Your task to perform on an android device: change your default location settings in chrome Image 0: 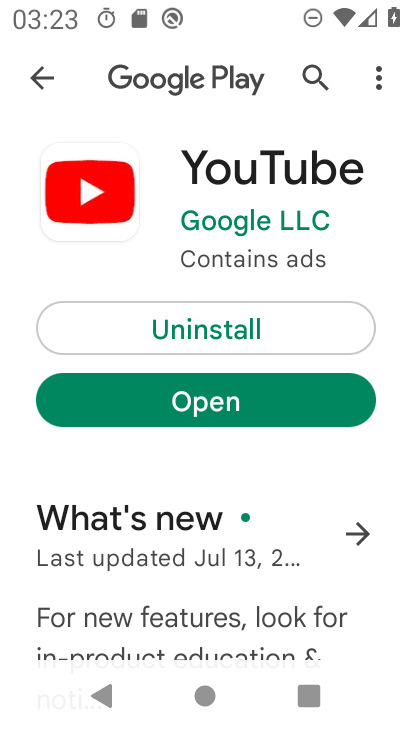
Step 0: press home button
Your task to perform on an android device: change your default location settings in chrome Image 1: 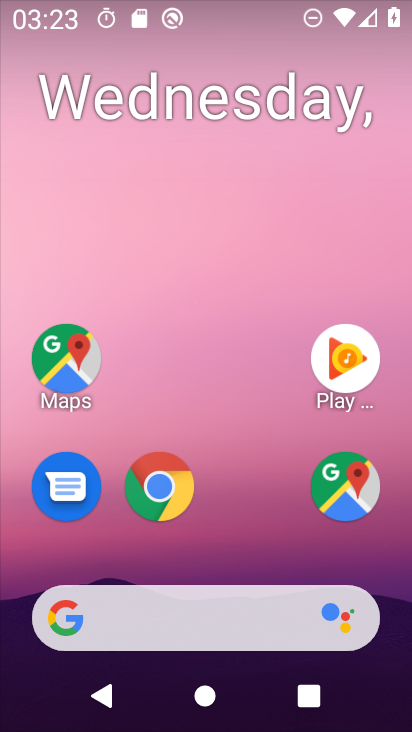
Step 1: drag from (240, 548) to (272, 129)
Your task to perform on an android device: change your default location settings in chrome Image 2: 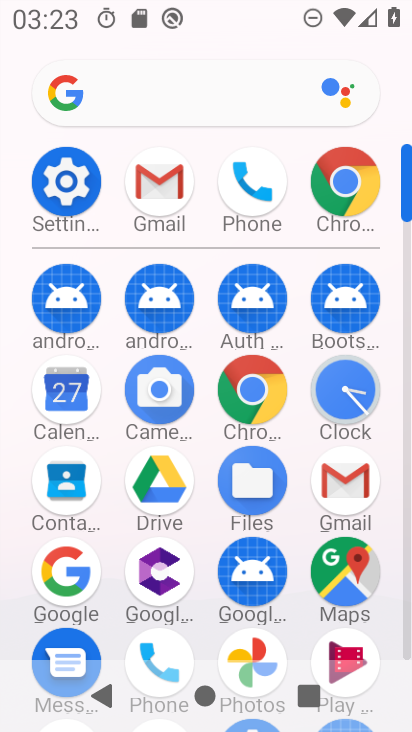
Step 2: click (264, 395)
Your task to perform on an android device: change your default location settings in chrome Image 3: 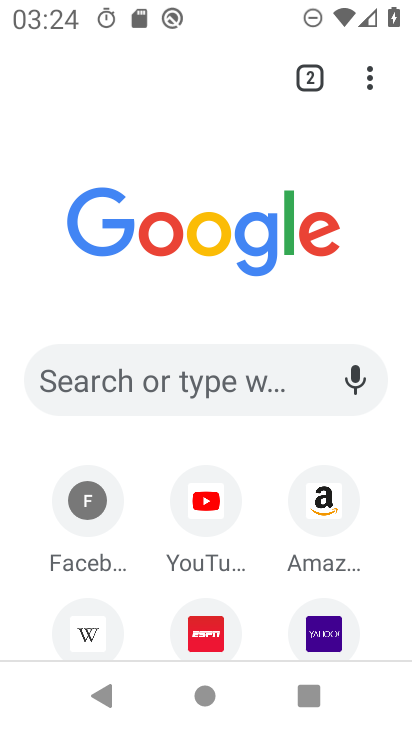
Step 3: click (369, 93)
Your task to perform on an android device: change your default location settings in chrome Image 4: 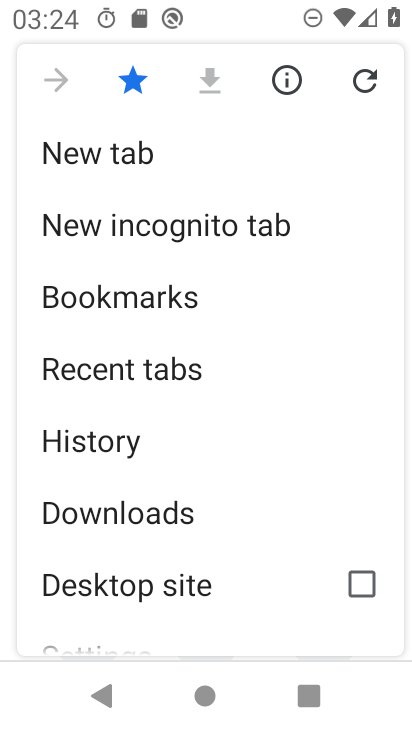
Step 4: drag from (318, 383) to (323, 336)
Your task to perform on an android device: change your default location settings in chrome Image 5: 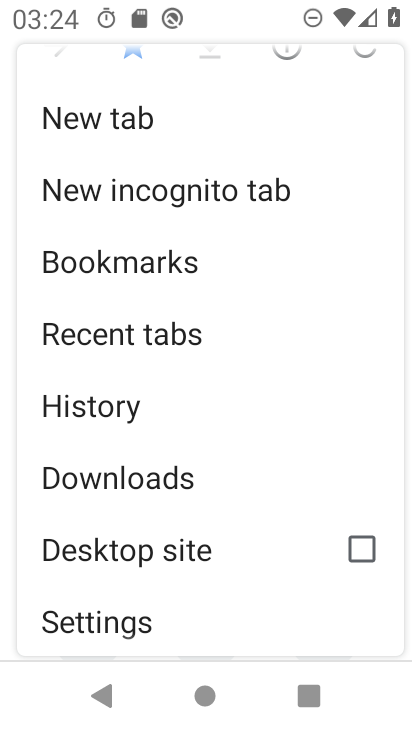
Step 5: drag from (286, 478) to (289, 404)
Your task to perform on an android device: change your default location settings in chrome Image 6: 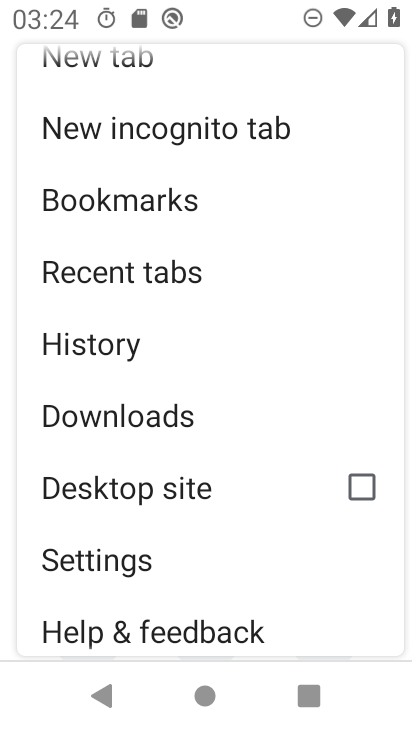
Step 6: click (247, 551)
Your task to perform on an android device: change your default location settings in chrome Image 7: 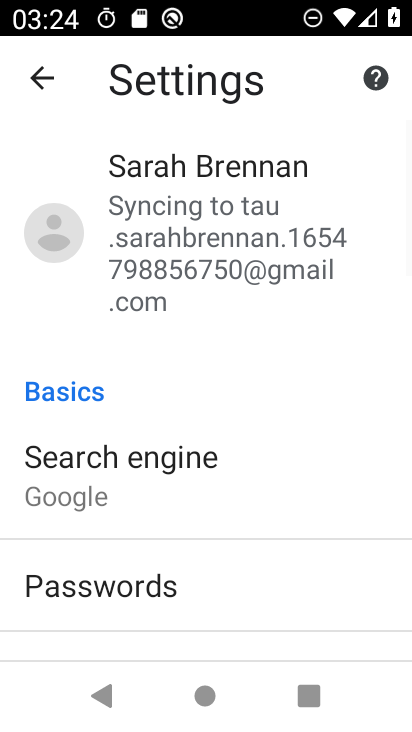
Step 7: drag from (324, 575) to (330, 479)
Your task to perform on an android device: change your default location settings in chrome Image 8: 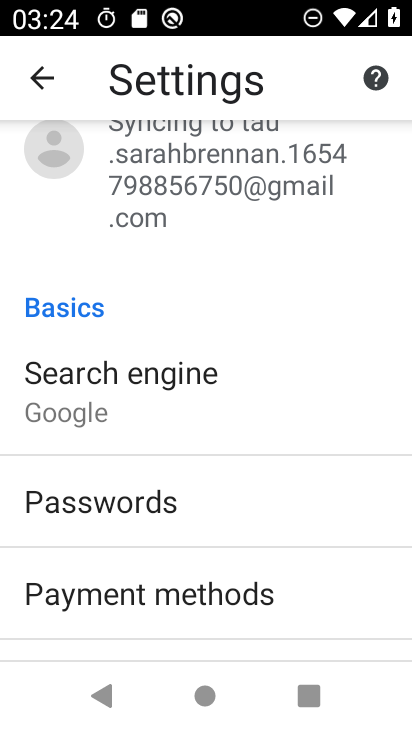
Step 8: drag from (353, 579) to (362, 478)
Your task to perform on an android device: change your default location settings in chrome Image 9: 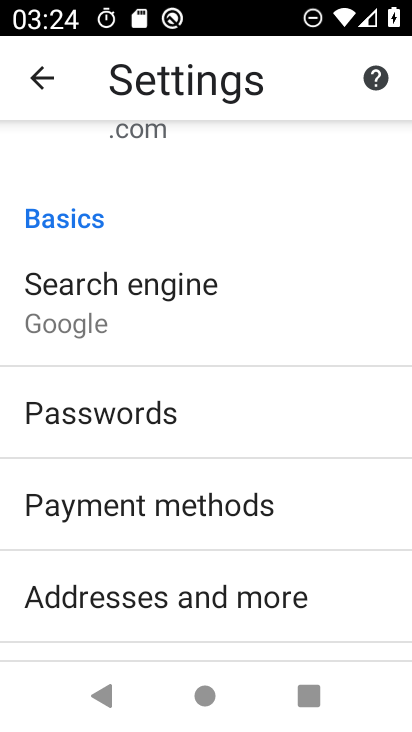
Step 9: drag from (366, 587) to (369, 508)
Your task to perform on an android device: change your default location settings in chrome Image 10: 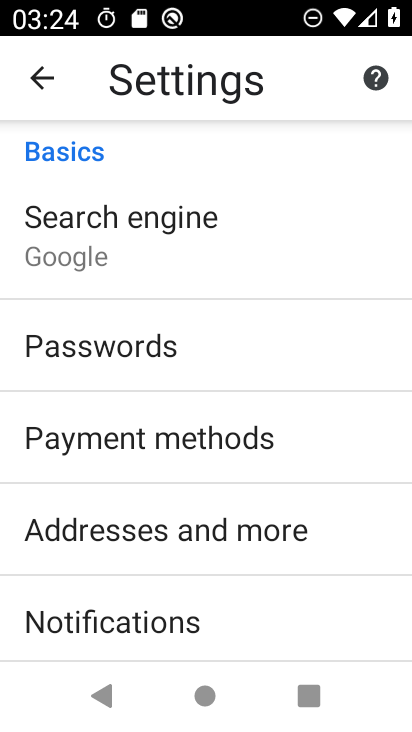
Step 10: drag from (351, 566) to (352, 490)
Your task to perform on an android device: change your default location settings in chrome Image 11: 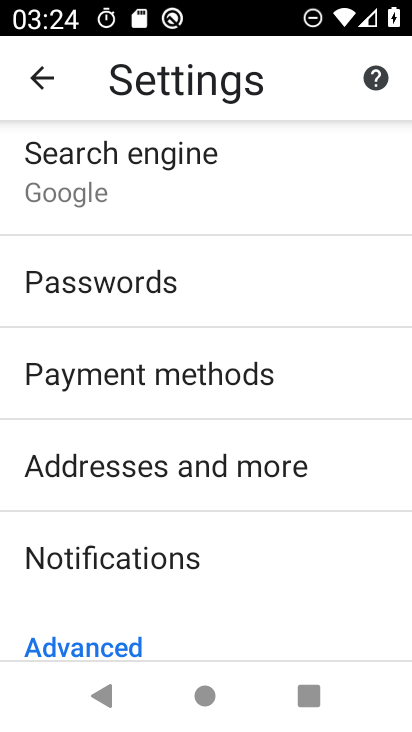
Step 11: drag from (338, 582) to (346, 493)
Your task to perform on an android device: change your default location settings in chrome Image 12: 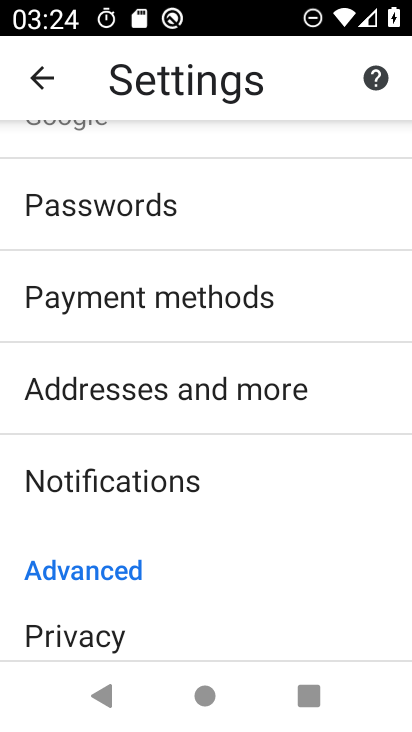
Step 12: drag from (343, 580) to (344, 470)
Your task to perform on an android device: change your default location settings in chrome Image 13: 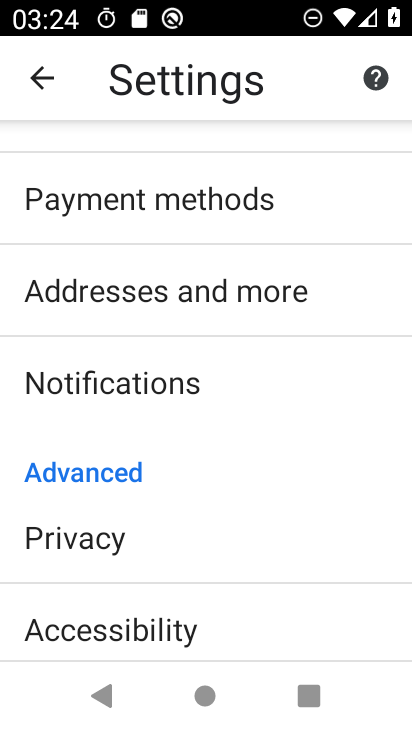
Step 13: drag from (340, 563) to (344, 406)
Your task to perform on an android device: change your default location settings in chrome Image 14: 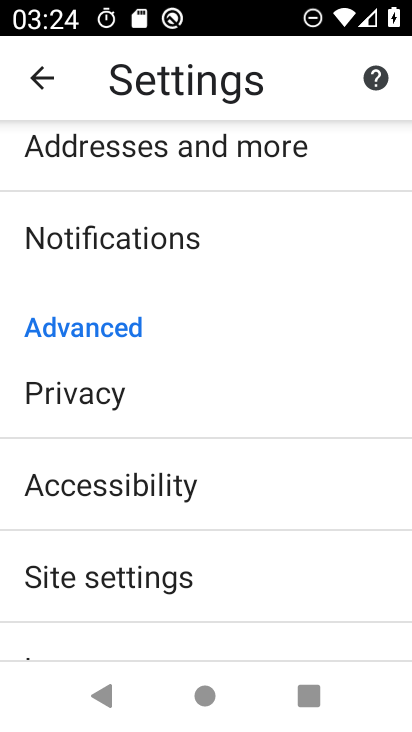
Step 14: click (340, 577)
Your task to perform on an android device: change your default location settings in chrome Image 15: 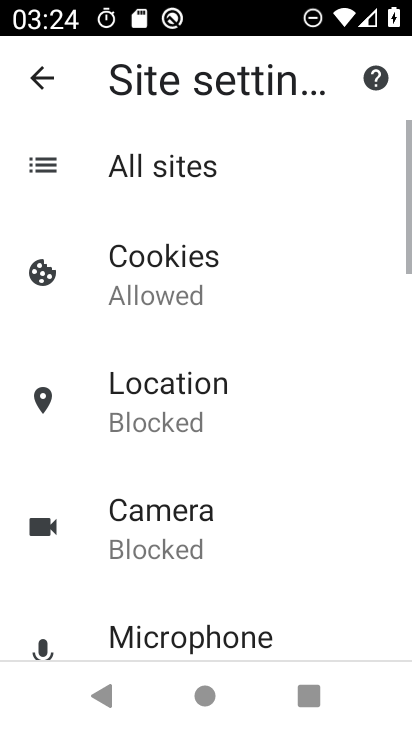
Step 15: drag from (346, 595) to (353, 518)
Your task to perform on an android device: change your default location settings in chrome Image 16: 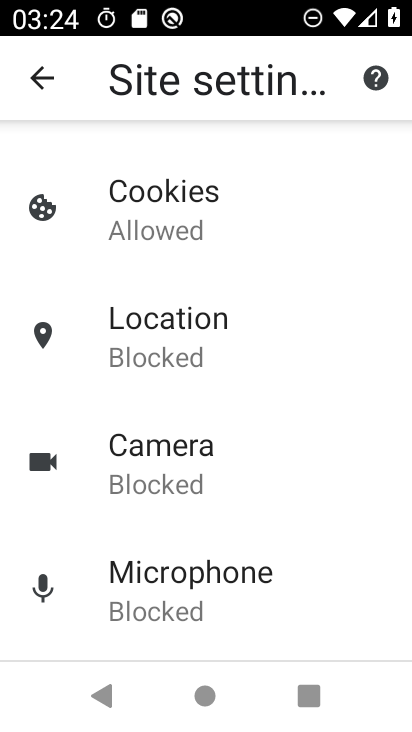
Step 16: click (244, 347)
Your task to perform on an android device: change your default location settings in chrome Image 17: 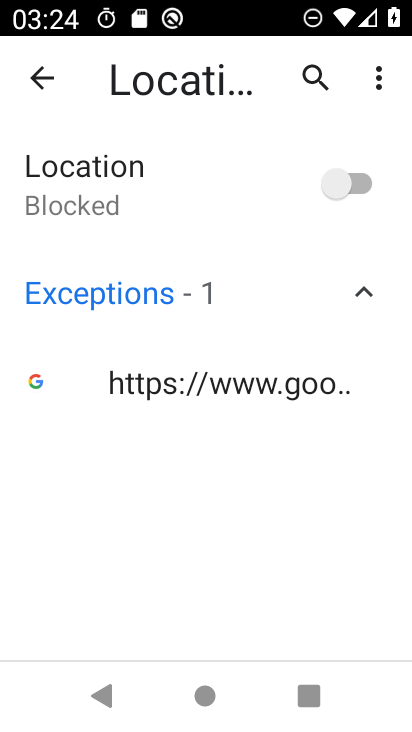
Step 17: click (323, 190)
Your task to perform on an android device: change your default location settings in chrome Image 18: 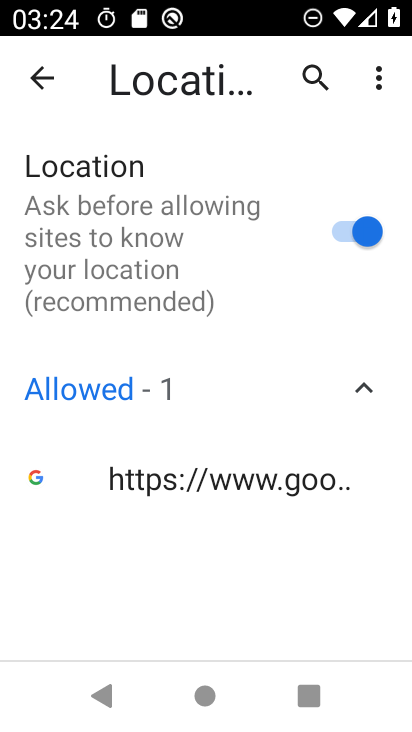
Step 18: task complete